Your task to perform on an android device: Open internet settings Image 0: 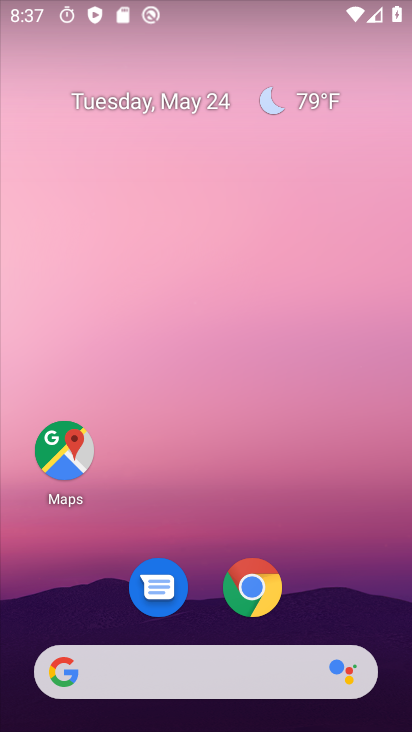
Step 0: drag from (332, 602) to (249, 187)
Your task to perform on an android device: Open internet settings Image 1: 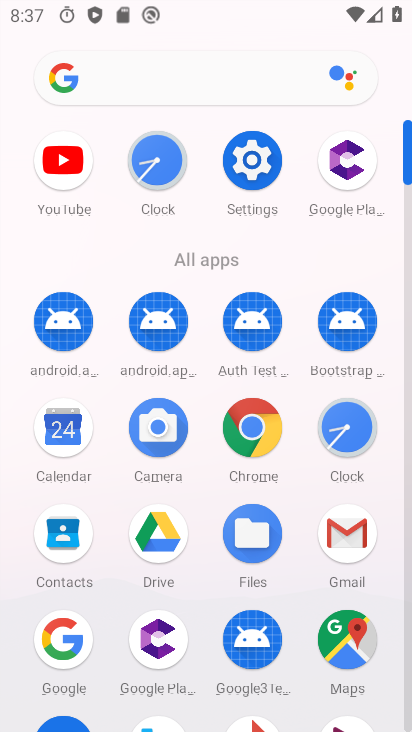
Step 1: click (251, 160)
Your task to perform on an android device: Open internet settings Image 2: 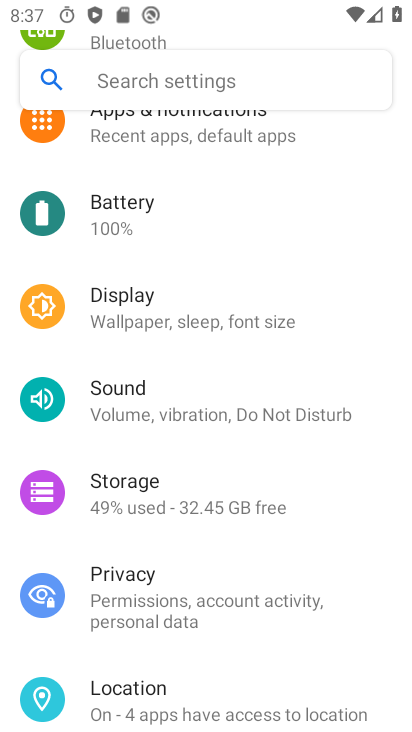
Step 2: drag from (213, 201) to (184, 300)
Your task to perform on an android device: Open internet settings Image 3: 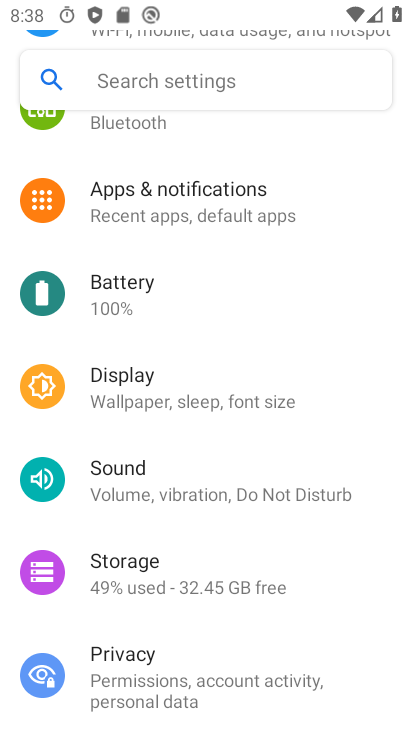
Step 3: drag from (218, 166) to (206, 347)
Your task to perform on an android device: Open internet settings Image 4: 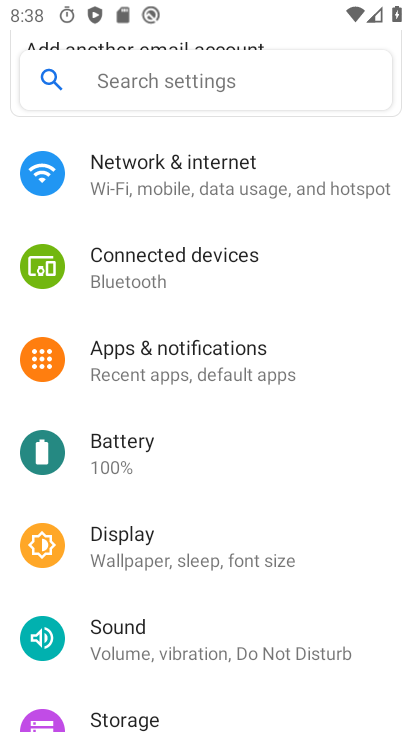
Step 4: click (165, 185)
Your task to perform on an android device: Open internet settings Image 5: 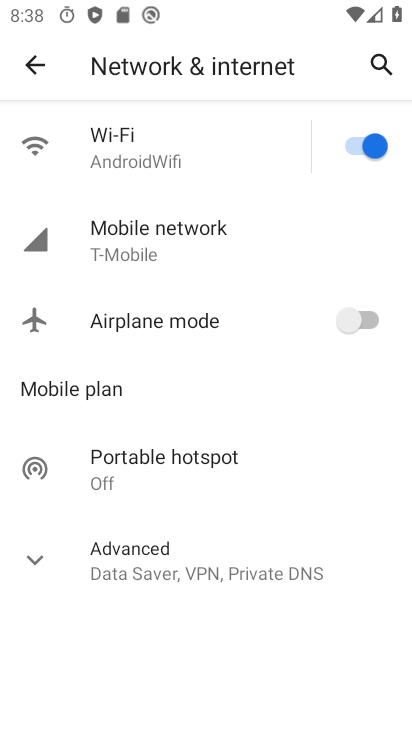
Step 5: click (158, 160)
Your task to perform on an android device: Open internet settings Image 6: 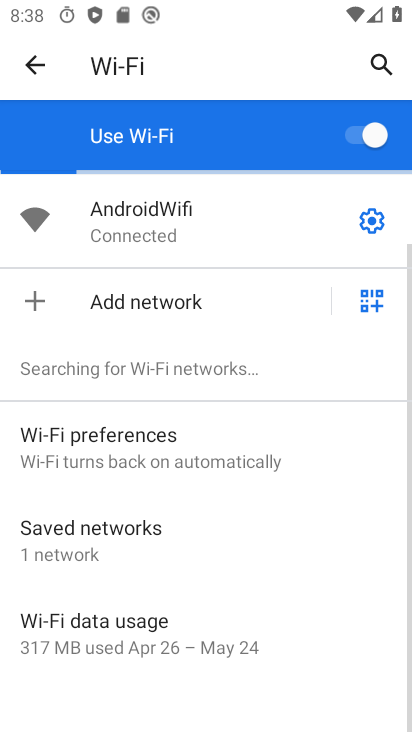
Step 6: task complete